Your task to perform on an android device: When is my next meeting? Image 0: 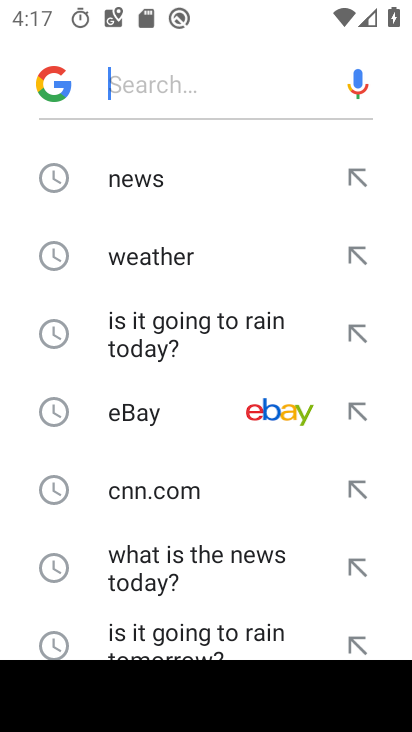
Step 0: press home button
Your task to perform on an android device: When is my next meeting? Image 1: 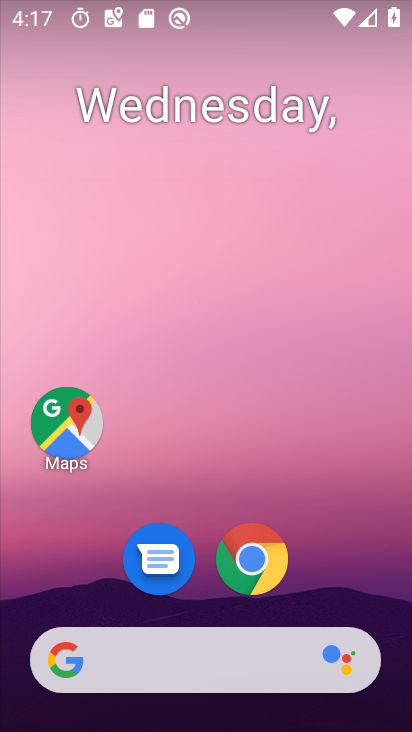
Step 1: click (216, 107)
Your task to perform on an android device: When is my next meeting? Image 2: 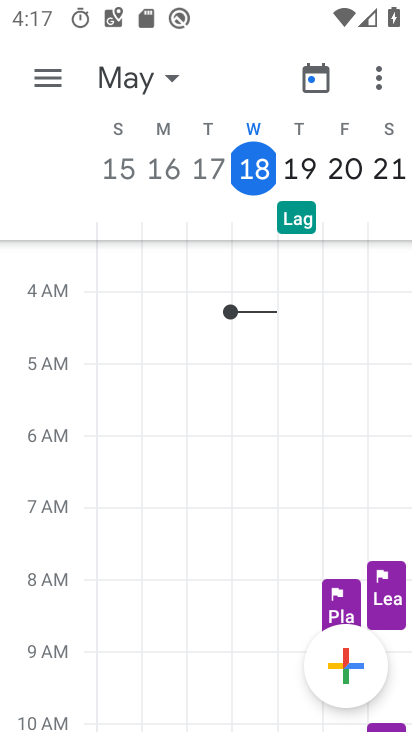
Step 2: task complete